Your task to perform on an android device: see creations saved in the google photos Image 0: 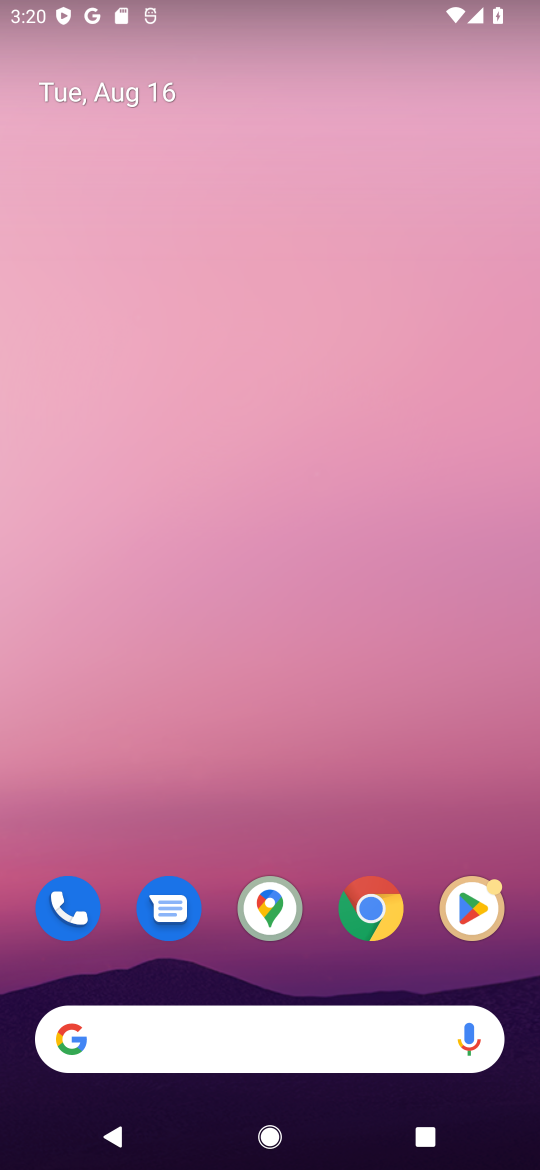
Step 0: drag from (280, 972) to (345, 223)
Your task to perform on an android device: see creations saved in the google photos Image 1: 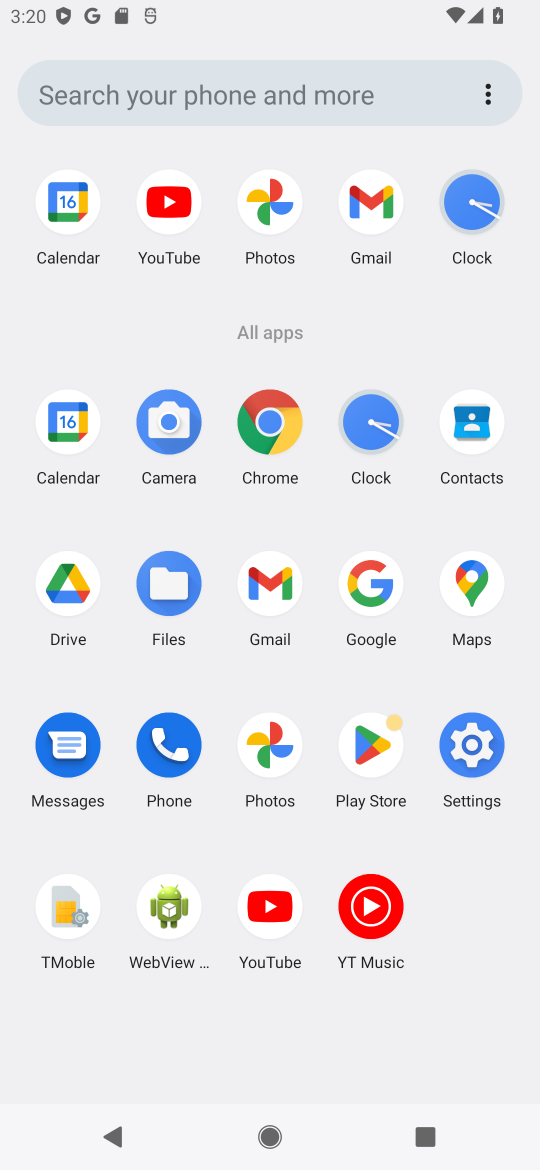
Step 1: click (277, 725)
Your task to perform on an android device: see creations saved in the google photos Image 2: 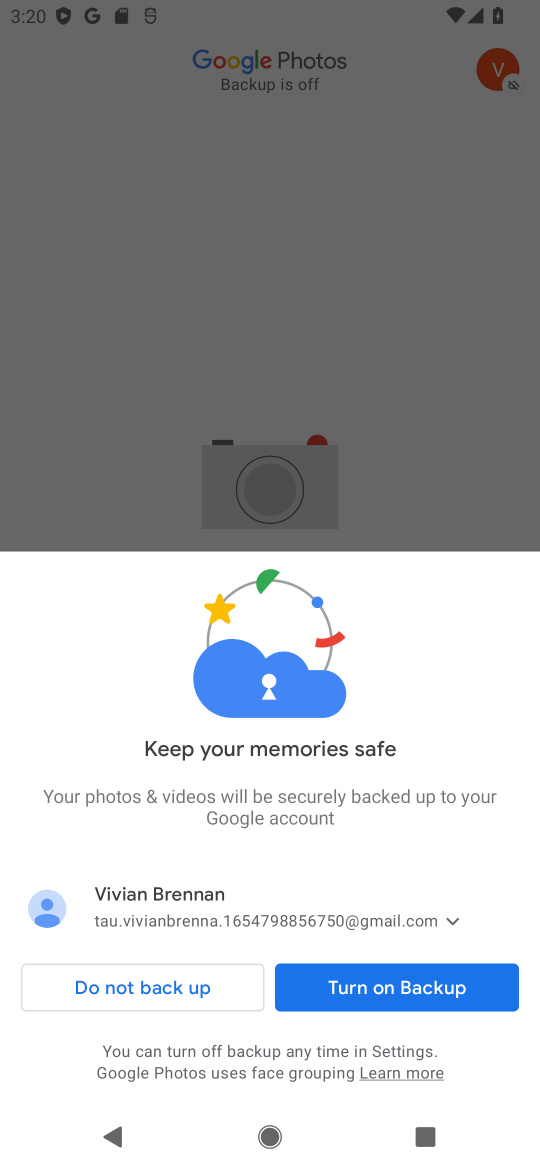
Step 2: click (151, 983)
Your task to perform on an android device: see creations saved in the google photos Image 3: 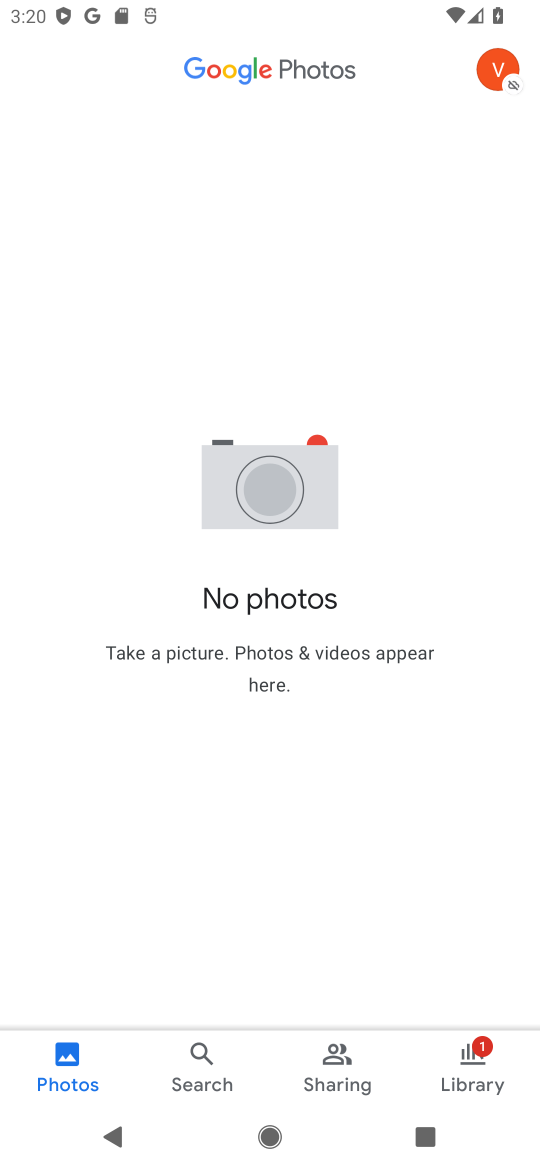
Step 3: click (497, 81)
Your task to perform on an android device: see creations saved in the google photos Image 4: 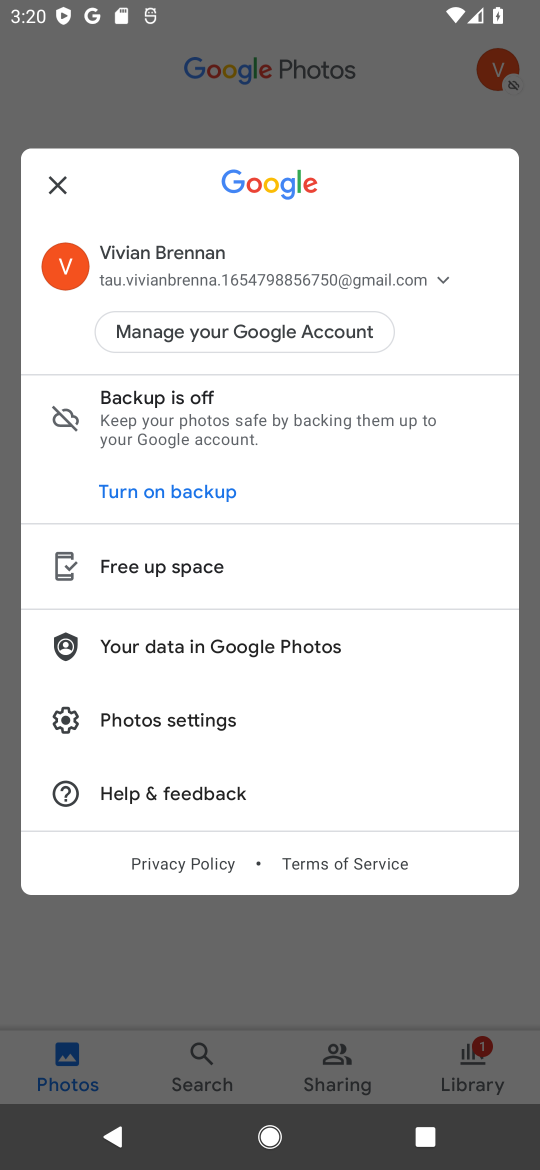
Step 4: task complete